Your task to perform on an android device: change alarm snooze length Image 0: 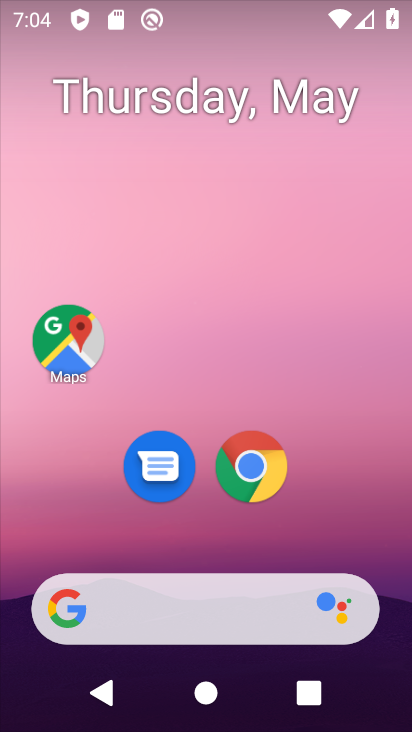
Step 0: drag from (352, 499) to (295, 15)
Your task to perform on an android device: change alarm snooze length Image 1: 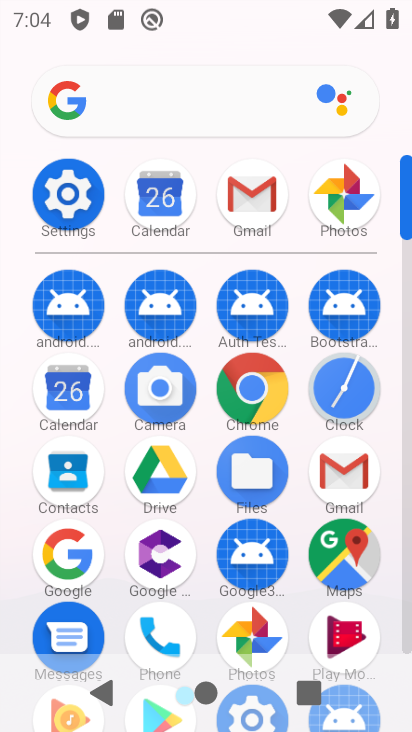
Step 1: click (340, 388)
Your task to perform on an android device: change alarm snooze length Image 2: 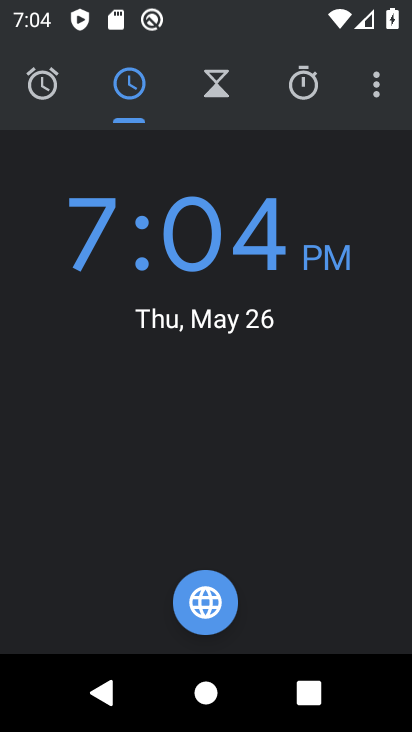
Step 2: click (375, 83)
Your task to perform on an android device: change alarm snooze length Image 3: 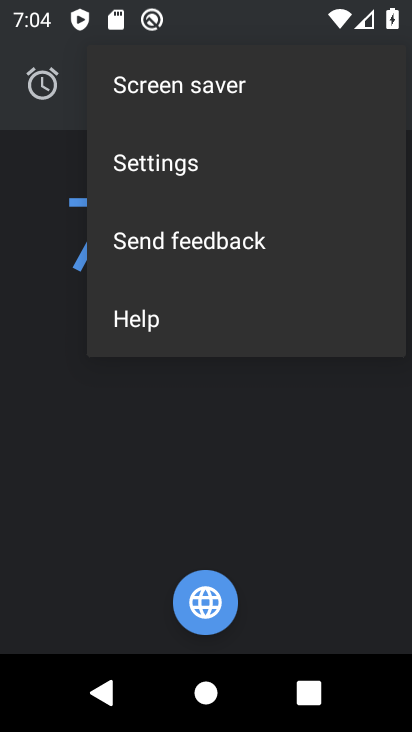
Step 3: click (177, 156)
Your task to perform on an android device: change alarm snooze length Image 4: 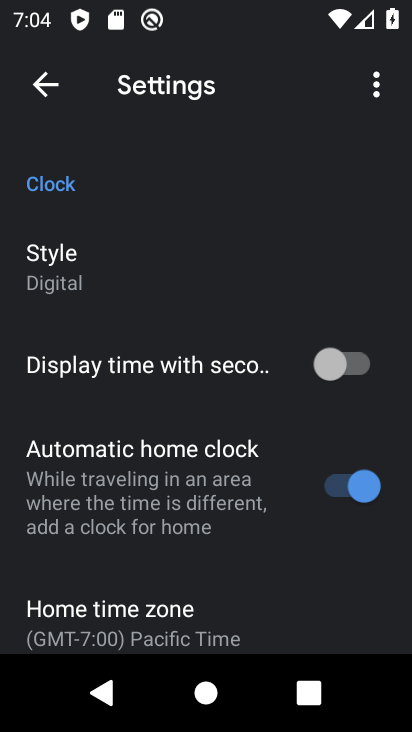
Step 4: drag from (244, 565) to (181, 247)
Your task to perform on an android device: change alarm snooze length Image 5: 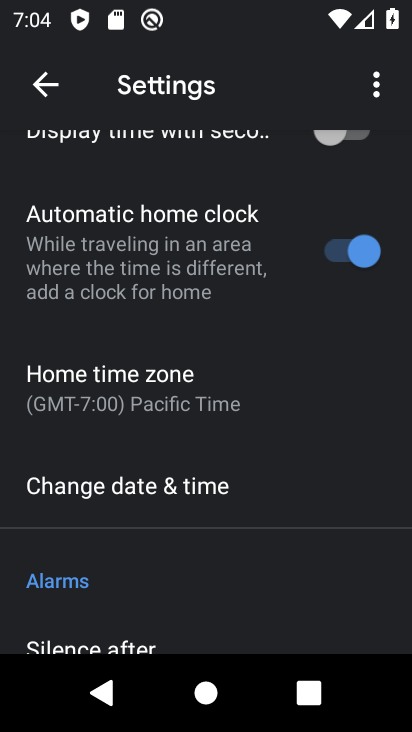
Step 5: drag from (255, 546) to (186, 245)
Your task to perform on an android device: change alarm snooze length Image 6: 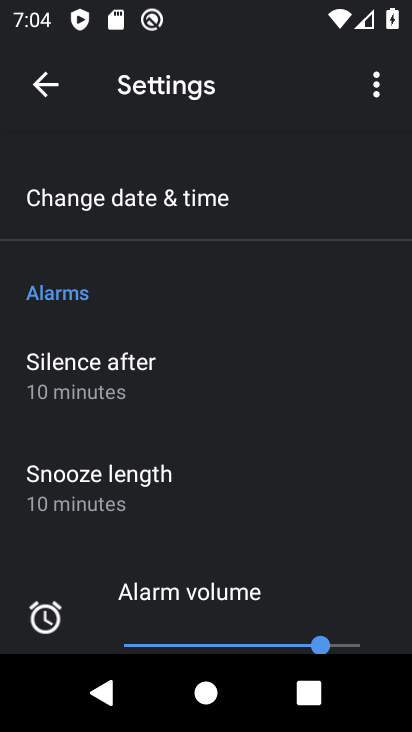
Step 6: click (103, 478)
Your task to perform on an android device: change alarm snooze length Image 7: 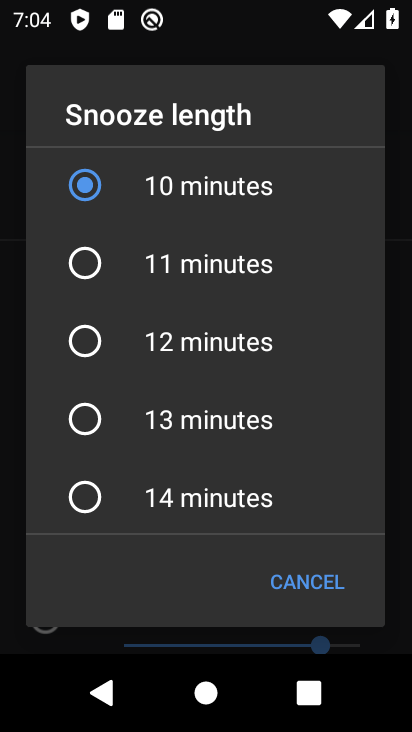
Step 7: click (85, 272)
Your task to perform on an android device: change alarm snooze length Image 8: 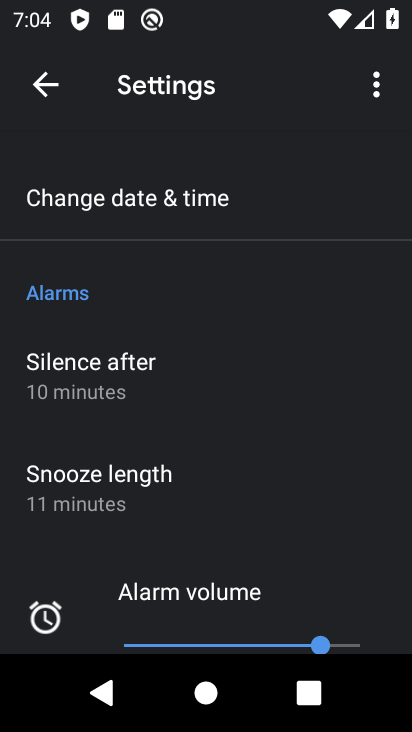
Step 8: task complete